Your task to perform on an android device: Open Chrome and go to settings Image 0: 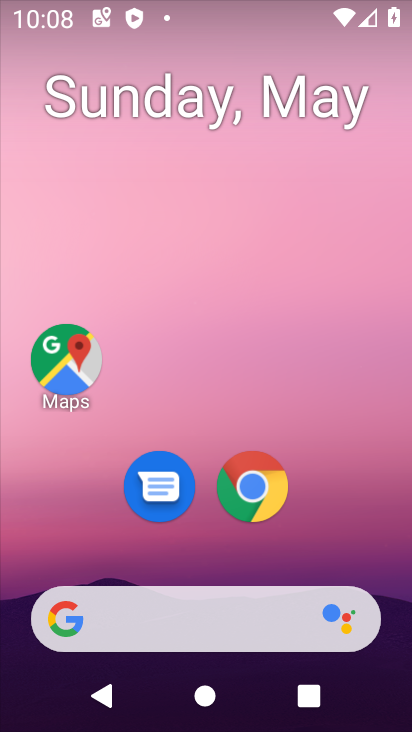
Step 0: click (255, 487)
Your task to perform on an android device: Open Chrome and go to settings Image 1: 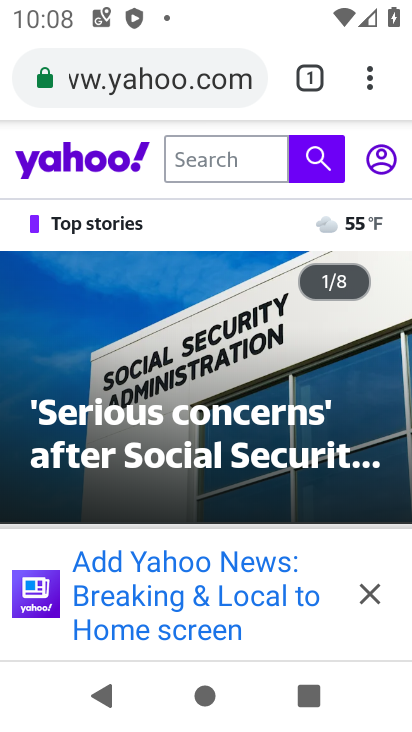
Step 1: click (370, 78)
Your task to perform on an android device: Open Chrome and go to settings Image 2: 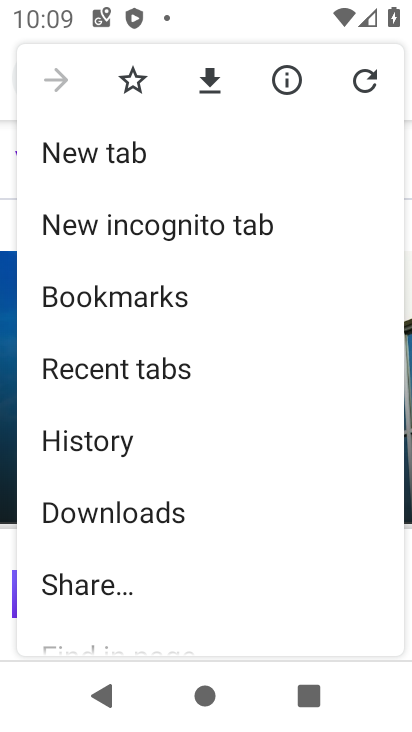
Step 2: drag from (150, 541) to (178, 452)
Your task to perform on an android device: Open Chrome and go to settings Image 3: 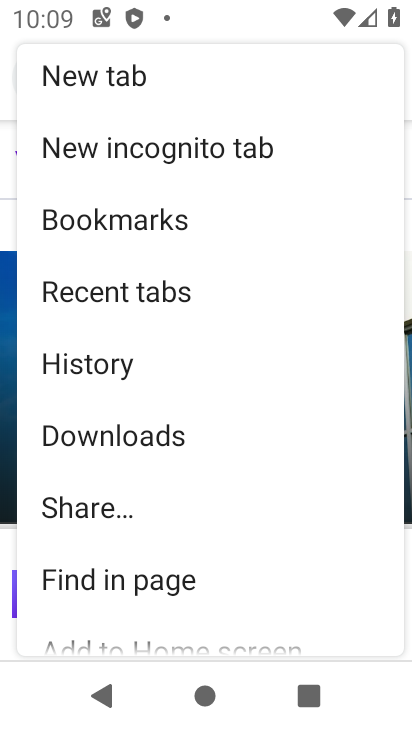
Step 3: drag from (139, 536) to (218, 445)
Your task to perform on an android device: Open Chrome and go to settings Image 4: 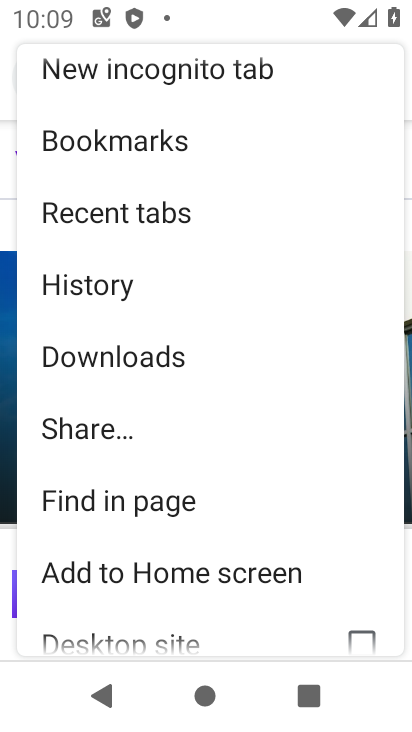
Step 4: drag from (147, 537) to (216, 439)
Your task to perform on an android device: Open Chrome and go to settings Image 5: 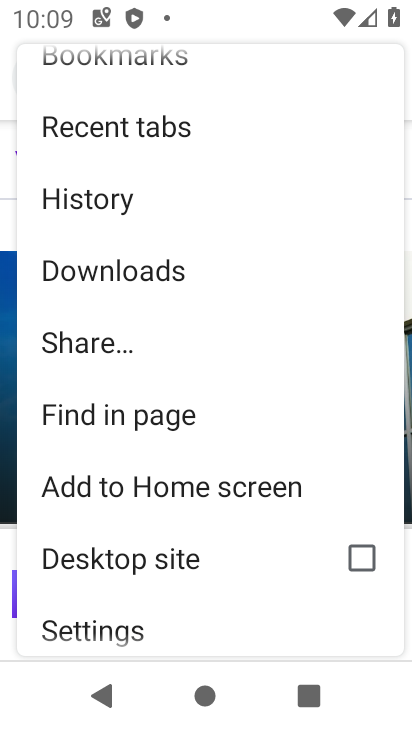
Step 5: drag from (140, 523) to (215, 405)
Your task to perform on an android device: Open Chrome and go to settings Image 6: 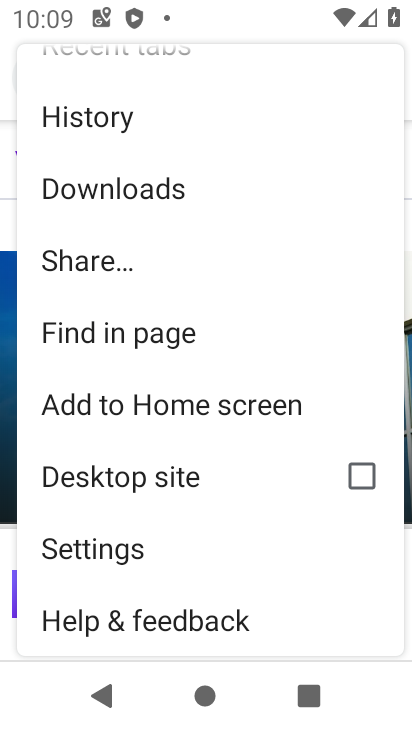
Step 6: click (108, 542)
Your task to perform on an android device: Open Chrome and go to settings Image 7: 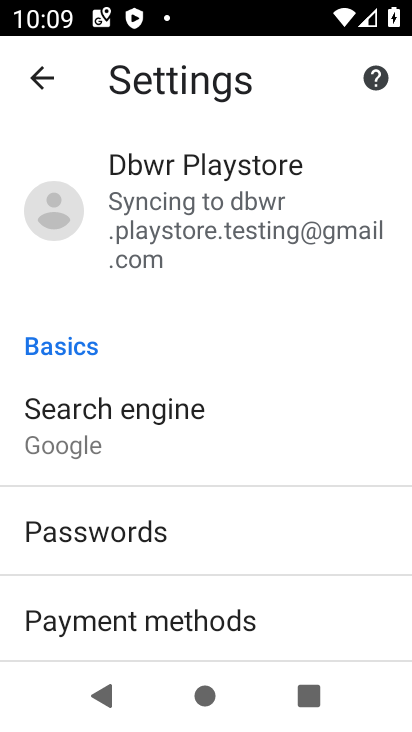
Step 7: task complete